Your task to perform on an android device: Go to internet settings Image 0: 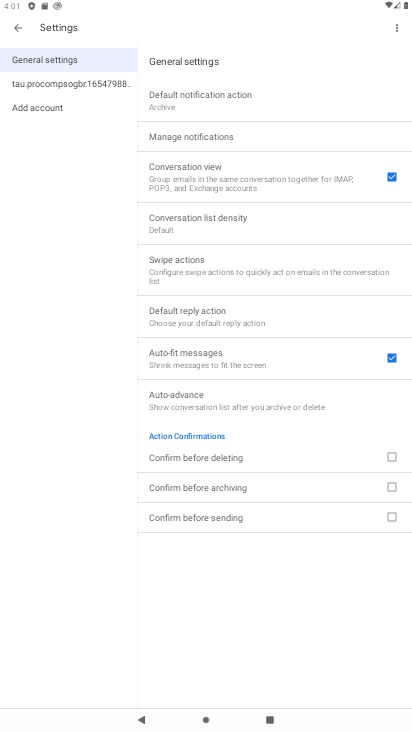
Step 0: drag from (216, 9) to (241, 605)
Your task to perform on an android device: Go to internet settings Image 1: 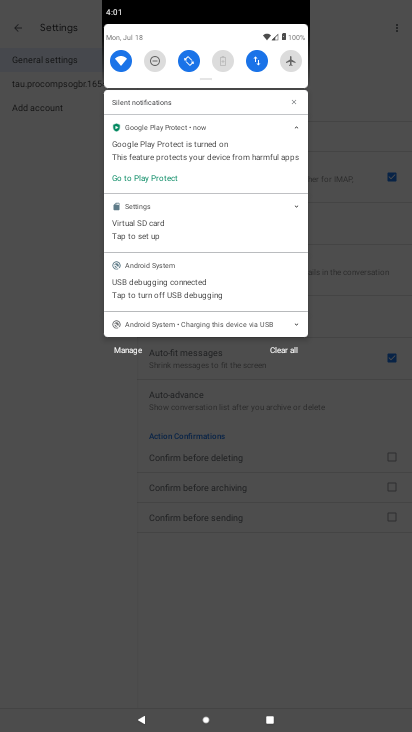
Step 1: click (254, 68)
Your task to perform on an android device: Go to internet settings Image 2: 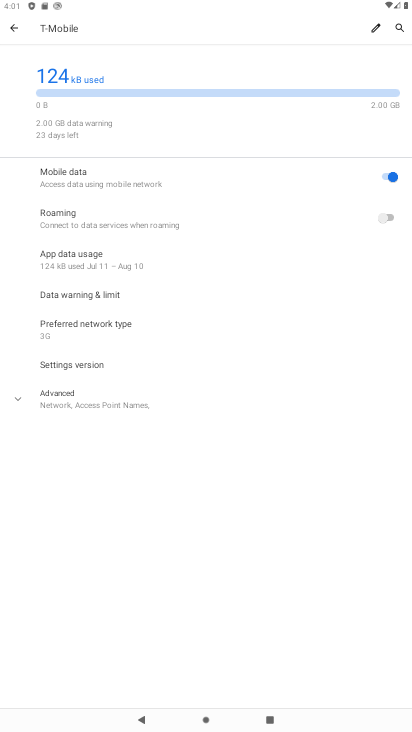
Step 2: task complete